Your task to perform on an android device: turn on bluetooth scan Image 0: 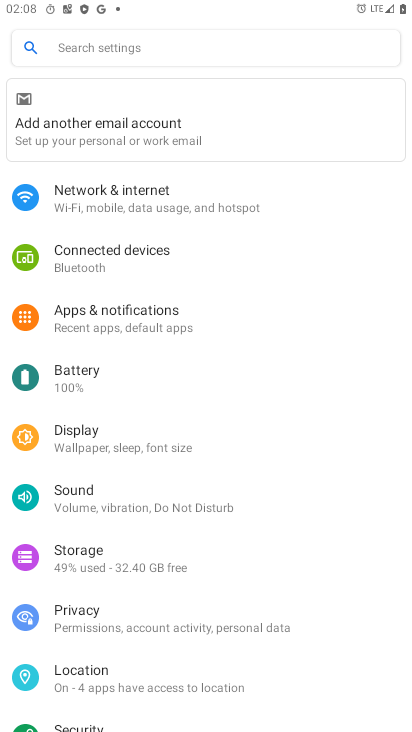
Step 0: click (71, 681)
Your task to perform on an android device: turn on bluetooth scan Image 1: 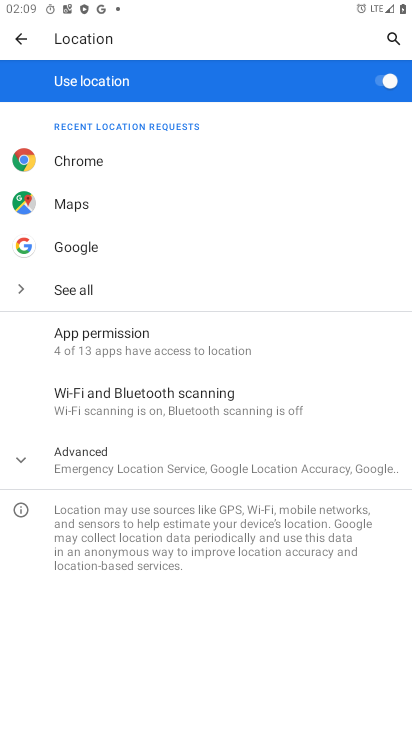
Step 1: click (113, 406)
Your task to perform on an android device: turn on bluetooth scan Image 2: 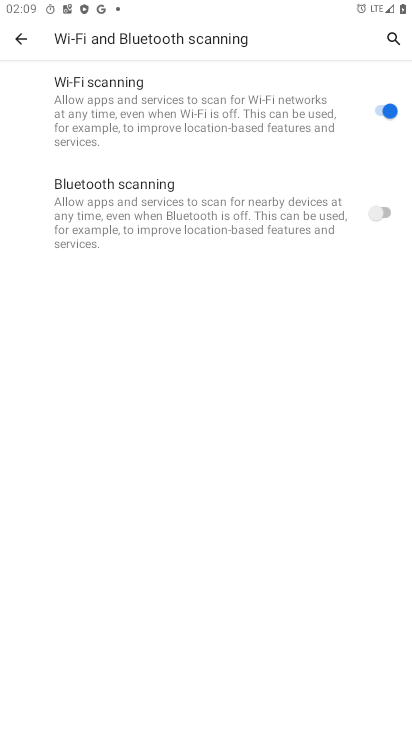
Step 2: click (386, 211)
Your task to perform on an android device: turn on bluetooth scan Image 3: 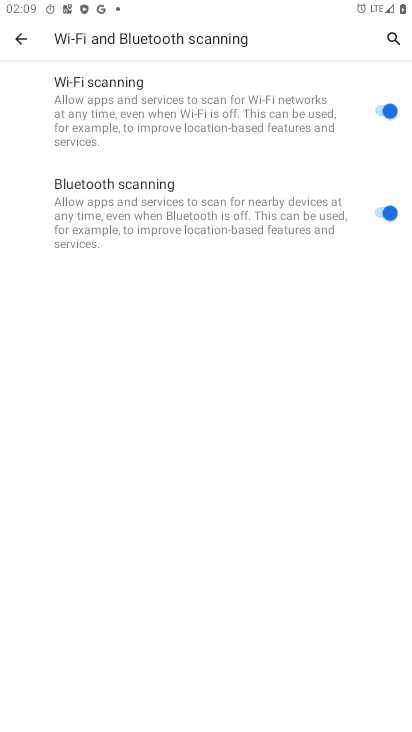
Step 3: task complete